Your task to perform on an android device: change notifications settings Image 0: 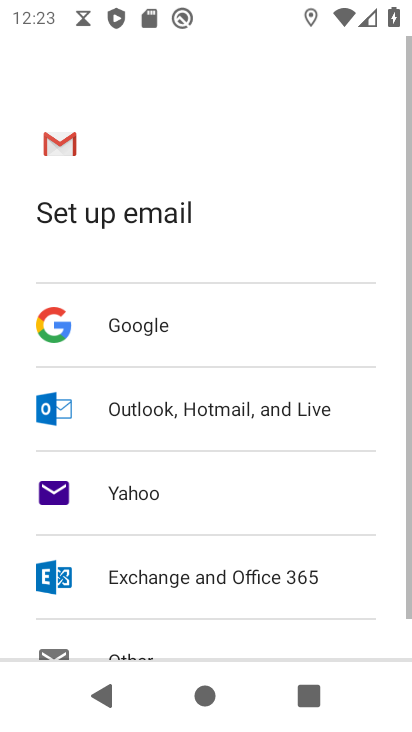
Step 0: press back button
Your task to perform on an android device: change notifications settings Image 1: 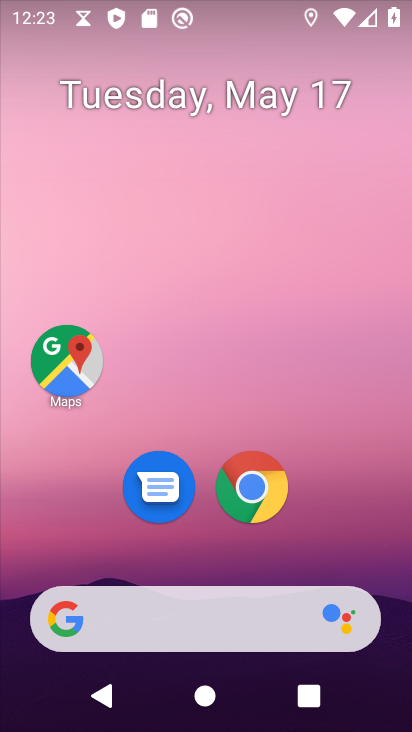
Step 1: drag from (332, 515) to (264, 7)
Your task to perform on an android device: change notifications settings Image 2: 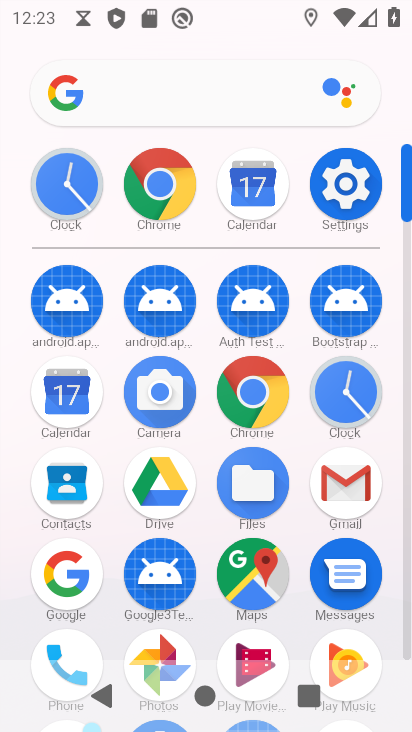
Step 2: drag from (4, 527) to (16, 284)
Your task to perform on an android device: change notifications settings Image 3: 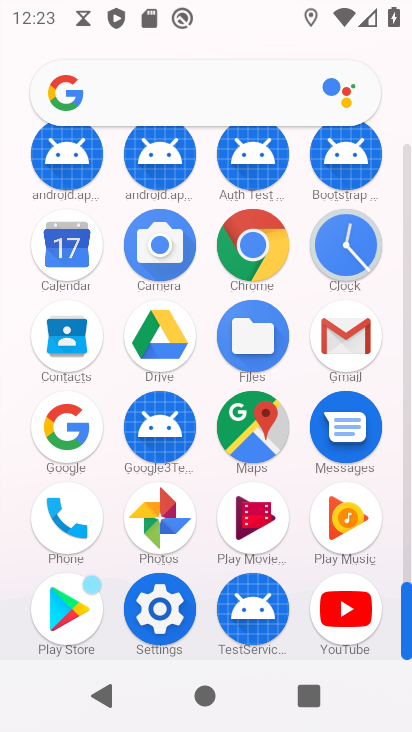
Step 3: click (158, 599)
Your task to perform on an android device: change notifications settings Image 4: 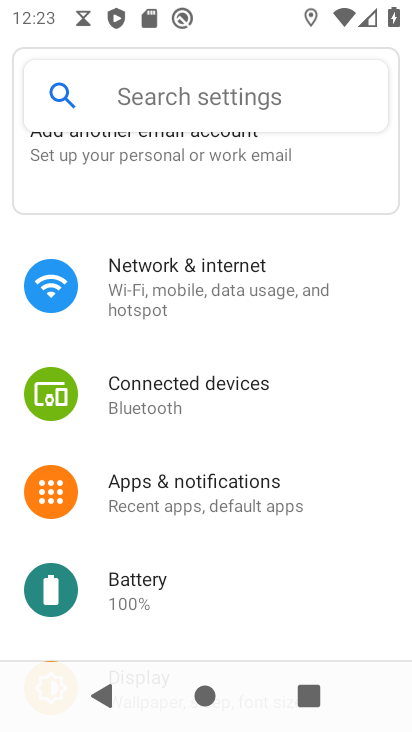
Step 4: drag from (297, 533) to (318, 221)
Your task to perform on an android device: change notifications settings Image 5: 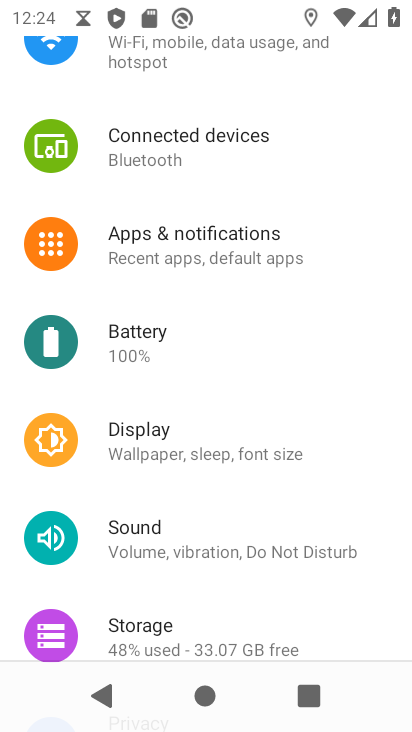
Step 5: click (212, 237)
Your task to perform on an android device: change notifications settings Image 6: 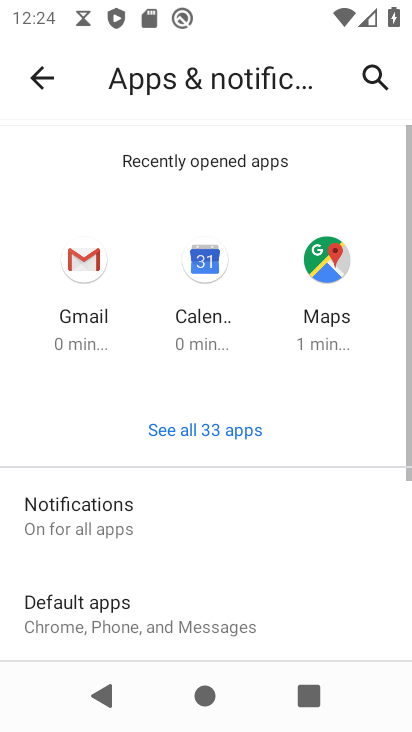
Step 6: drag from (244, 603) to (268, 208)
Your task to perform on an android device: change notifications settings Image 7: 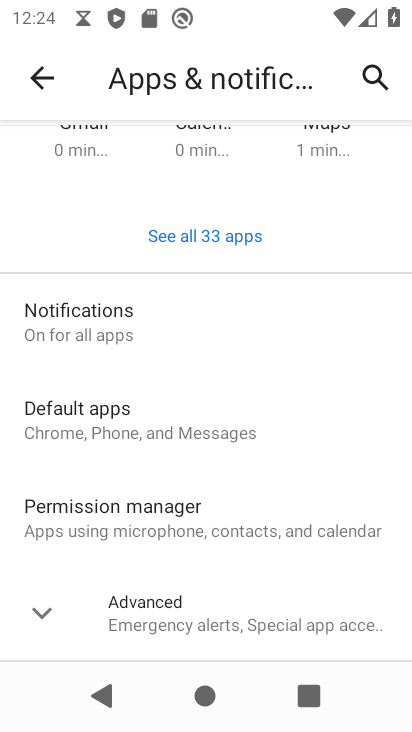
Step 7: click (104, 321)
Your task to perform on an android device: change notifications settings Image 8: 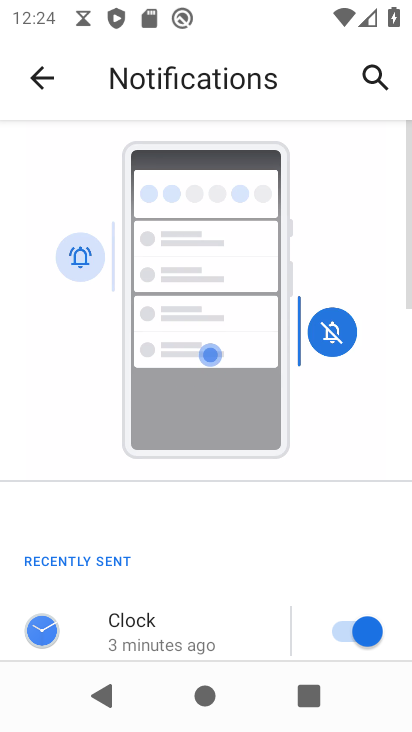
Step 8: drag from (240, 582) to (249, 187)
Your task to perform on an android device: change notifications settings Image 9: 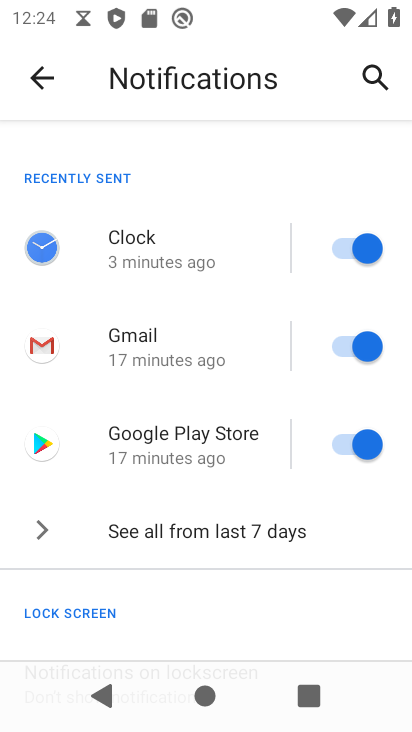
Step 9: drag from (201, 542) to (217, 172)
Your task to perform on an android device: change notifications settings Image 10: 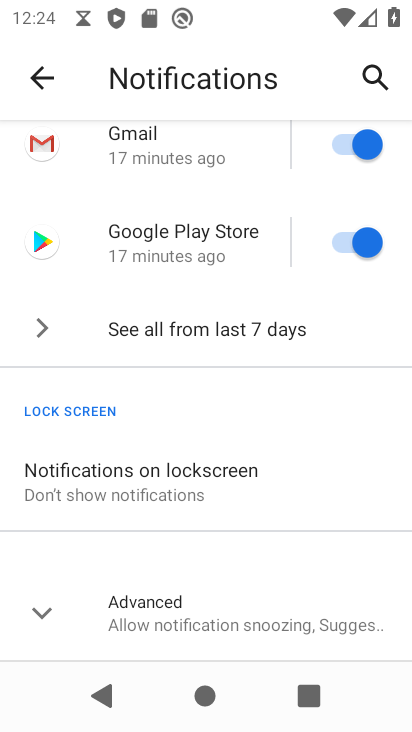
Step 10: click (40, 607)
Your task to perform on an android device: change notifications settings Image 11: 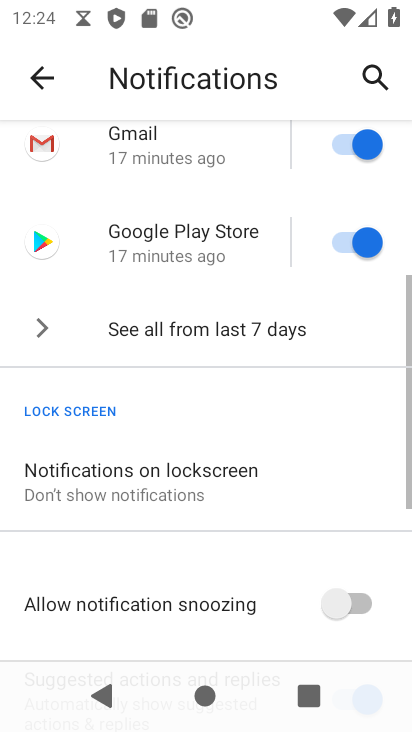
Step 11: drag from (209, 578) to (245, 196)
Your task to perform on an android device: change notifications settings Image 12: 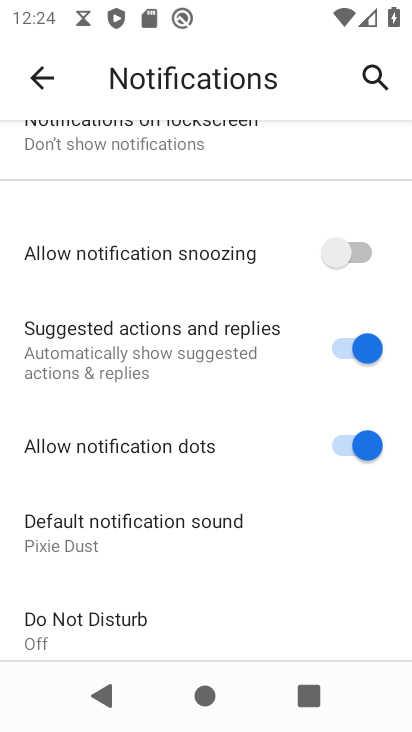
Step 12: drag from (237, 234) to (198, 640)
Your task to perform on an android device: change notifications settings Image 13: 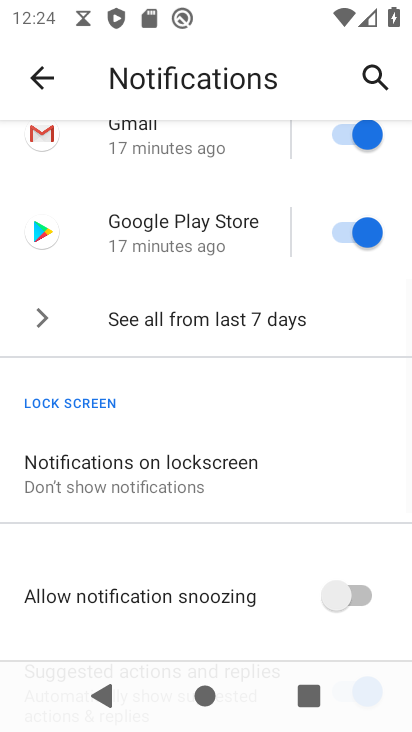
Step 13: drag from (220, 275) to (195, 604)
Your task to perform on an android device: change notifications settings Image 14: 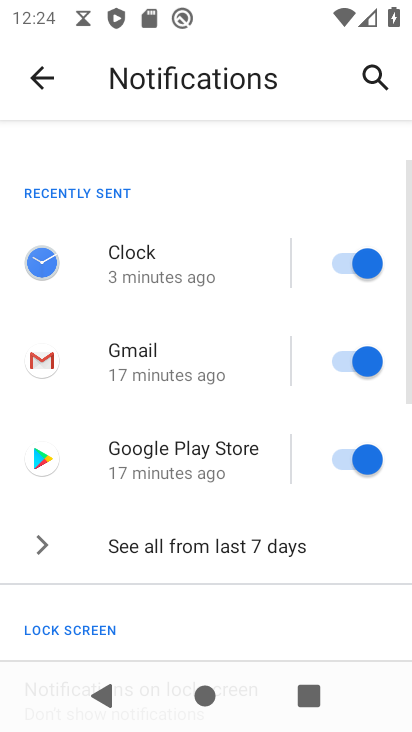
Step 14: drag from (218, 552) to (233, 146)
Your task to perform on an android device: change notifications settings Image 15: 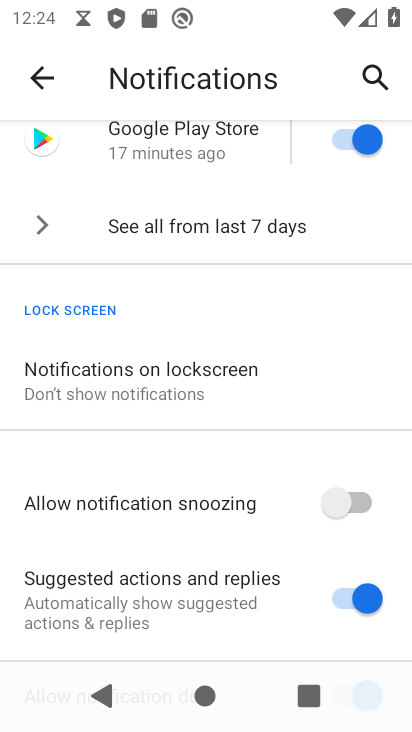
Step 15: drag from (204, 591) to (212, 196)
Your task to perform on an android device: change notifications settings Image 16: 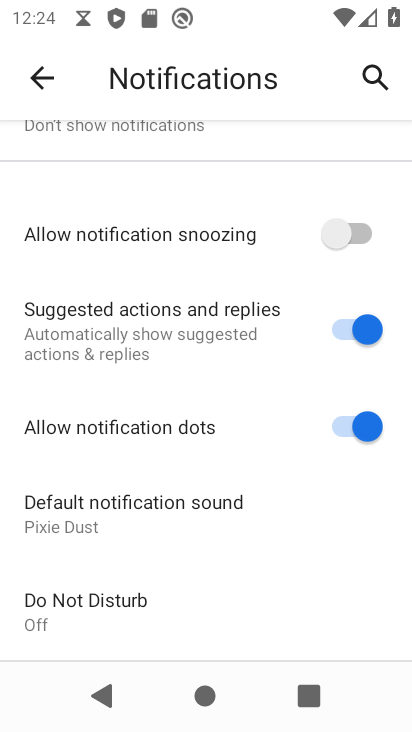
Step 16: drag from (200, 193) to (176, 554)
Your task to perform on an android device: change notifications settings Image 17: 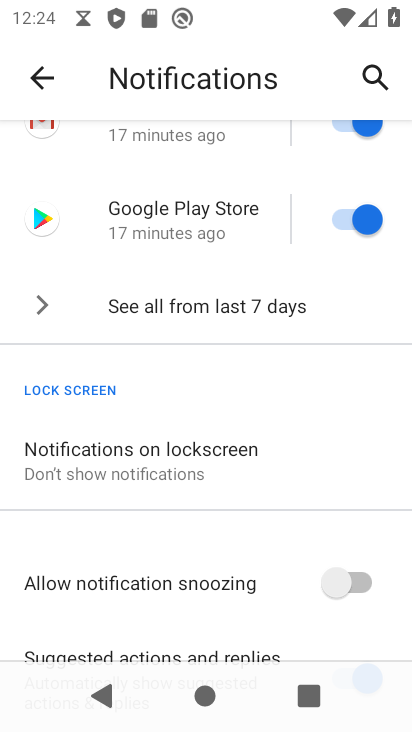
Step 17: click (185, 461)
Your task to perform on an android device: change notifications settings Image 18: 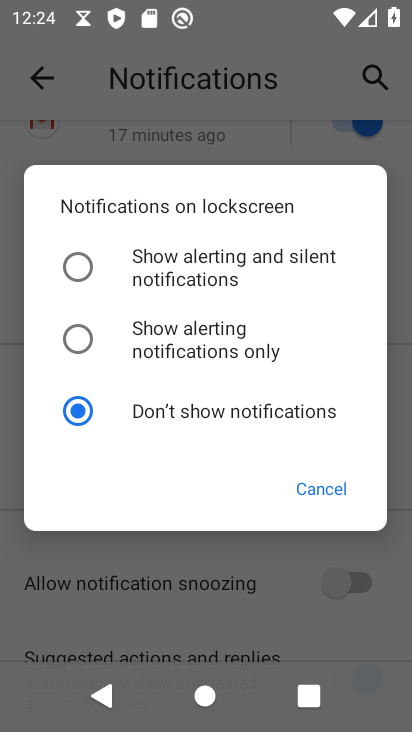
Step 18: click (189, 262)
Your task to perform on an android device: change notifications settings Image 19: 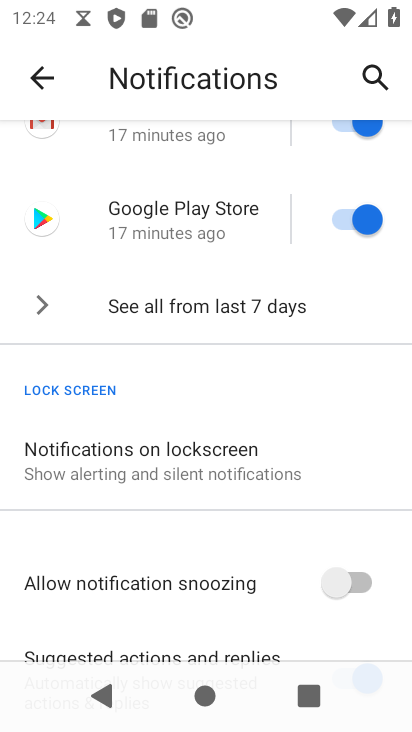
Step 19: task complete